Your task to perform on an android device: Go to battery settings Image 0: 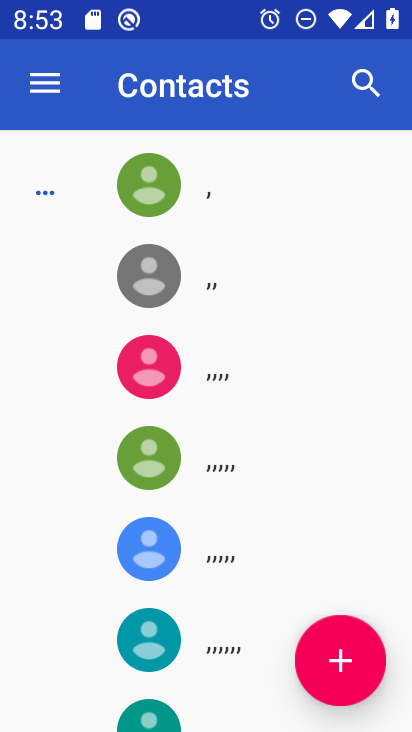
Step 0: press home button
Your task to perform on an android device: Go to battery settings Image 1: 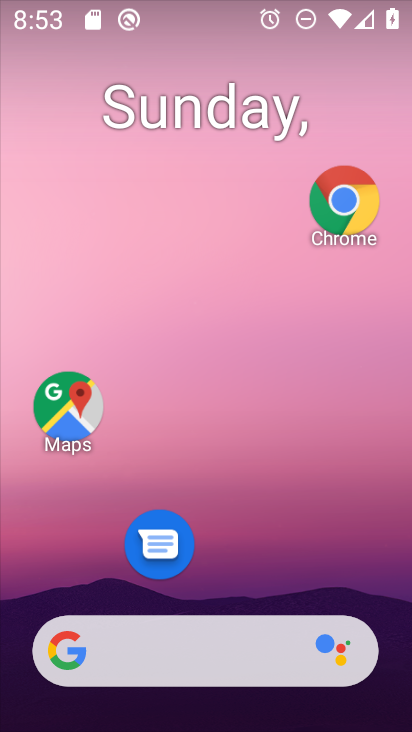
Step 1: drag from (284, 575) to (262, 118)
Your task to perform on an android device: Go to battery settings Image 2: 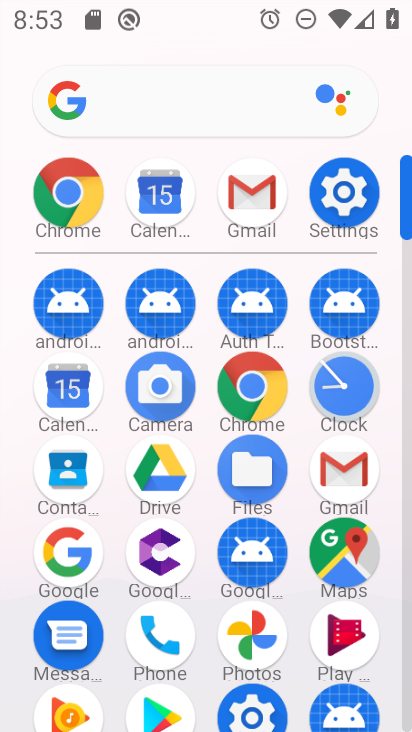
Step 2: click (342, 191)
Your task to perform on an android device: Go to battery settings Image 3: 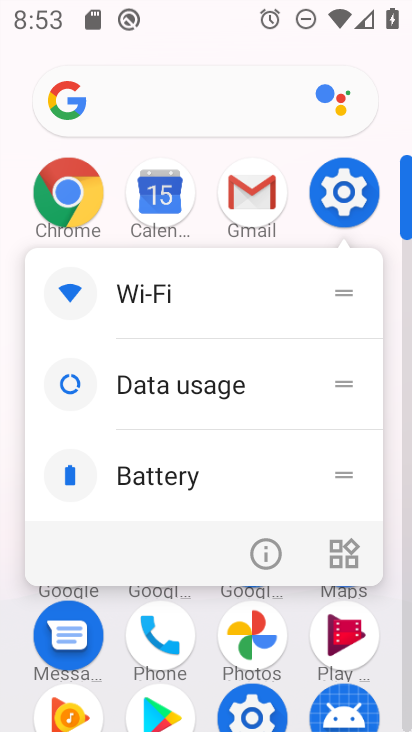
Step 3: click (342, 191)
Your task to perform on an android device: Go to battery settings Image 4: 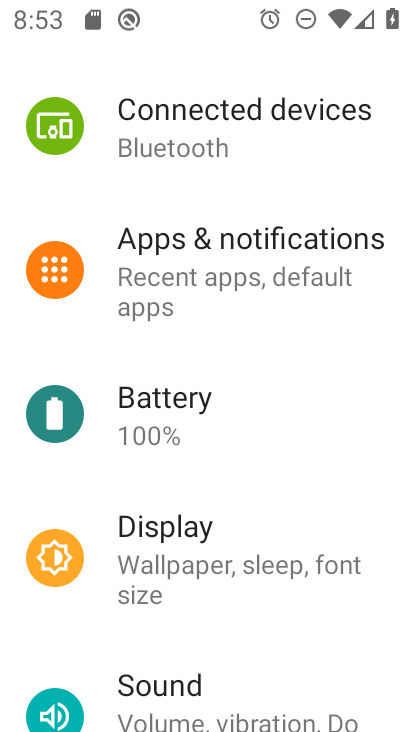
Step 4: click (224, 416)
Your task to perform on an android device: Go to battery settings Image 5: 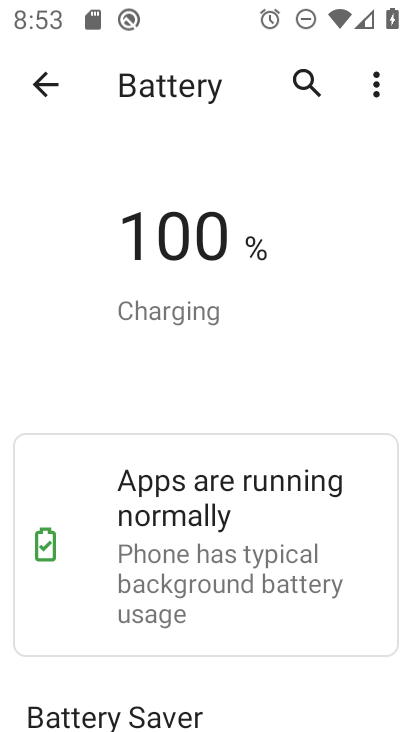
Step 5: task complete